Your task to perform on an android device: change text size in settings app Image 0: 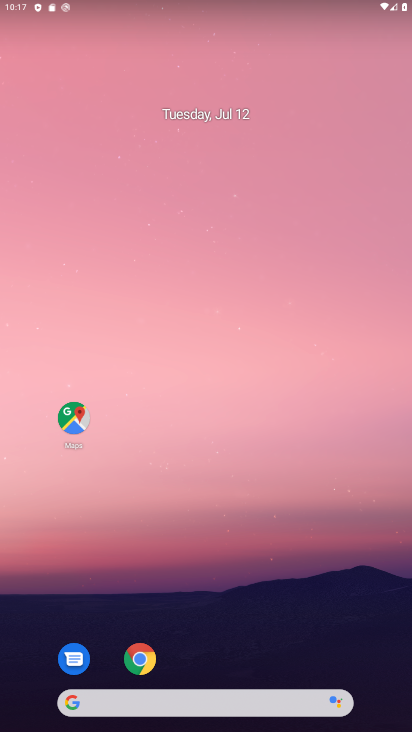
Step 0: click (191, 75)
Your task to perform on an android device: change text size in settings app Image 1: 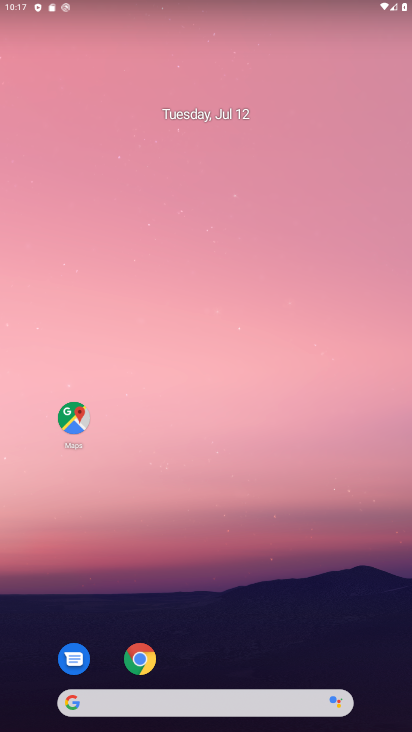
Step 1: drag from (198, 653) to (211, 35)
Your task to perform on an android device: change text size in settings app Image 2: 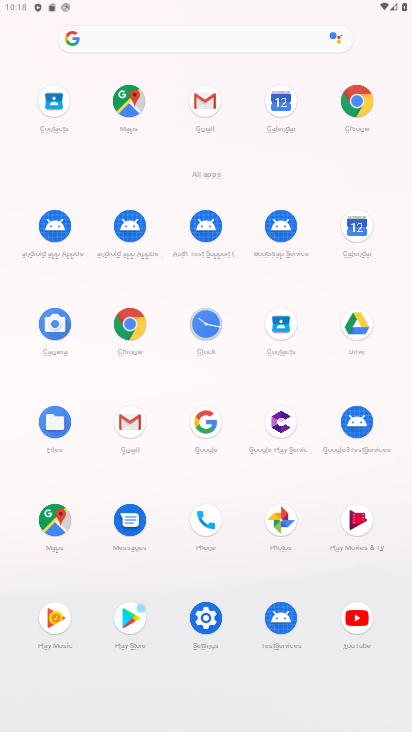
Step 2: click (199, 628)
Your task to perform on an android device: change text size in settings app Image 3: 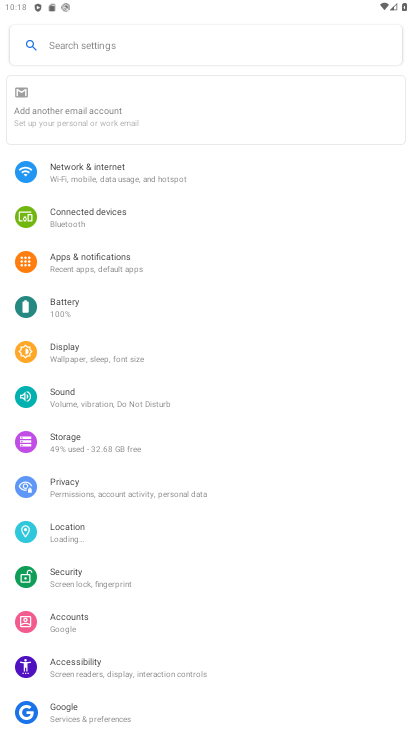
Step 3: click (199, 628)
Your task to perform on an android device: change text size in settings app Image 4: 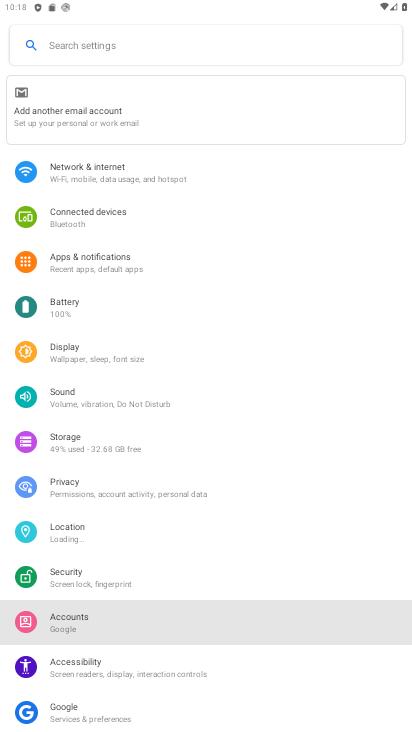
Step 4: drag from (199, 628) to (21, 32)
Your task to perform on an android device: change text size in settings app Image 5: 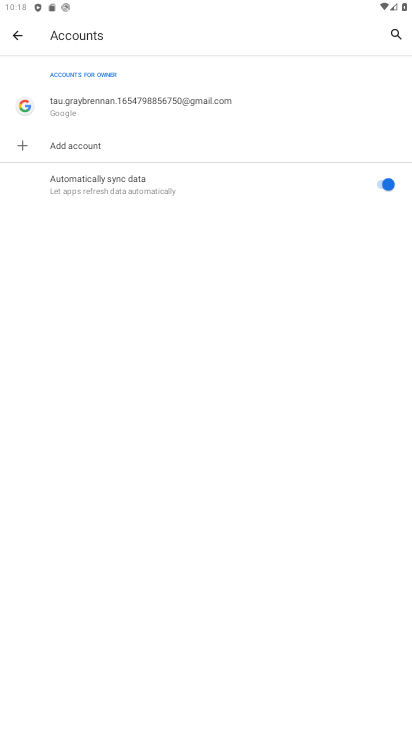
Step 5: click (18, 32)
Your task to perform on an android device: change text size in settings app Image 6: 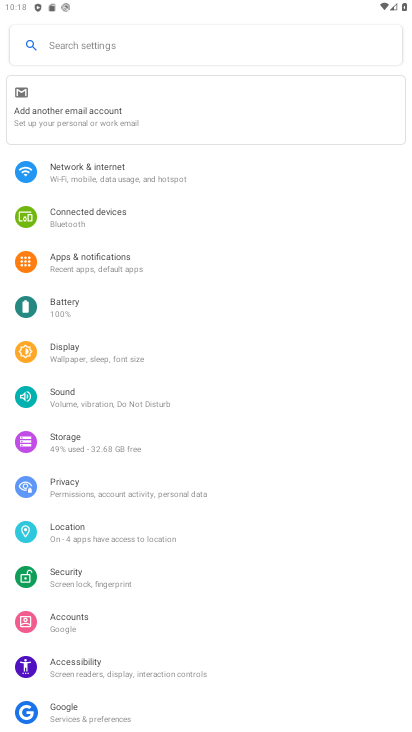
Step 6: click (92, 358)
Your task to perform on an android device: change text size in settings app Image 7: 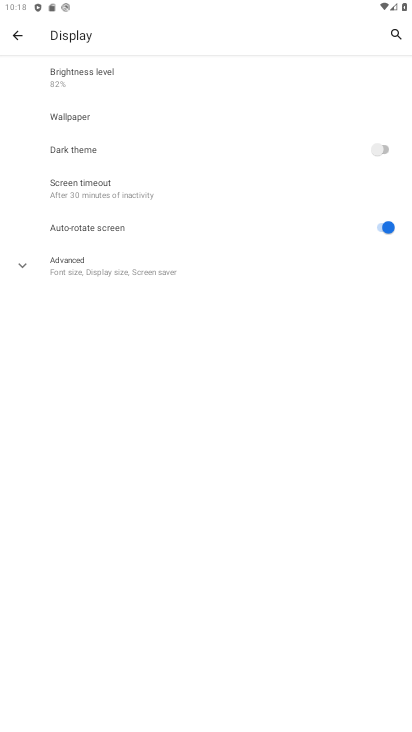
Step 7: click (82, 272)
Your task to perform on an android device: change text size in settings app Image 8: 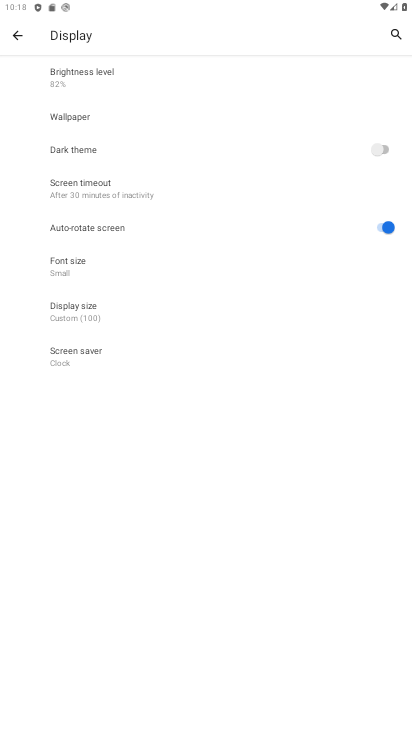
Step 8: click (75, 265)
Your task to perform on an android device: change text size in settings app Image 9: 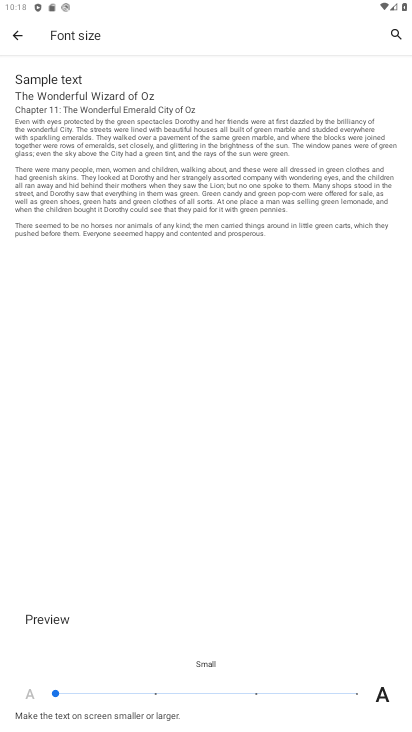
Step 9: click (145, 694)
Your task to perform on an android device: change text size in settings app Image 10: 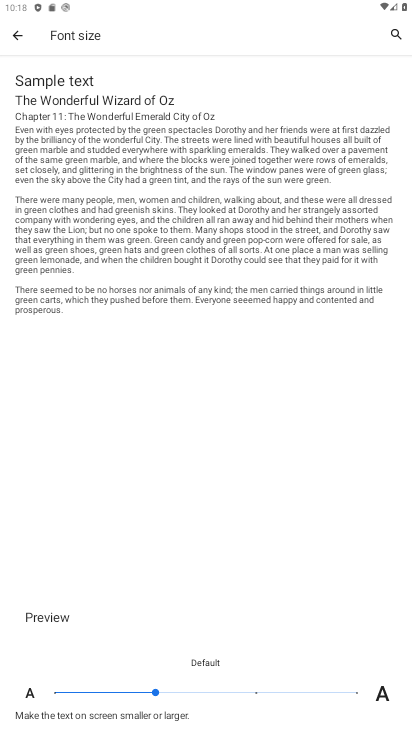
Step 10: task complete